Your task to perform on an android device: open app "Firefox Browser" (install if not already installed) and go to login screen Image 0: 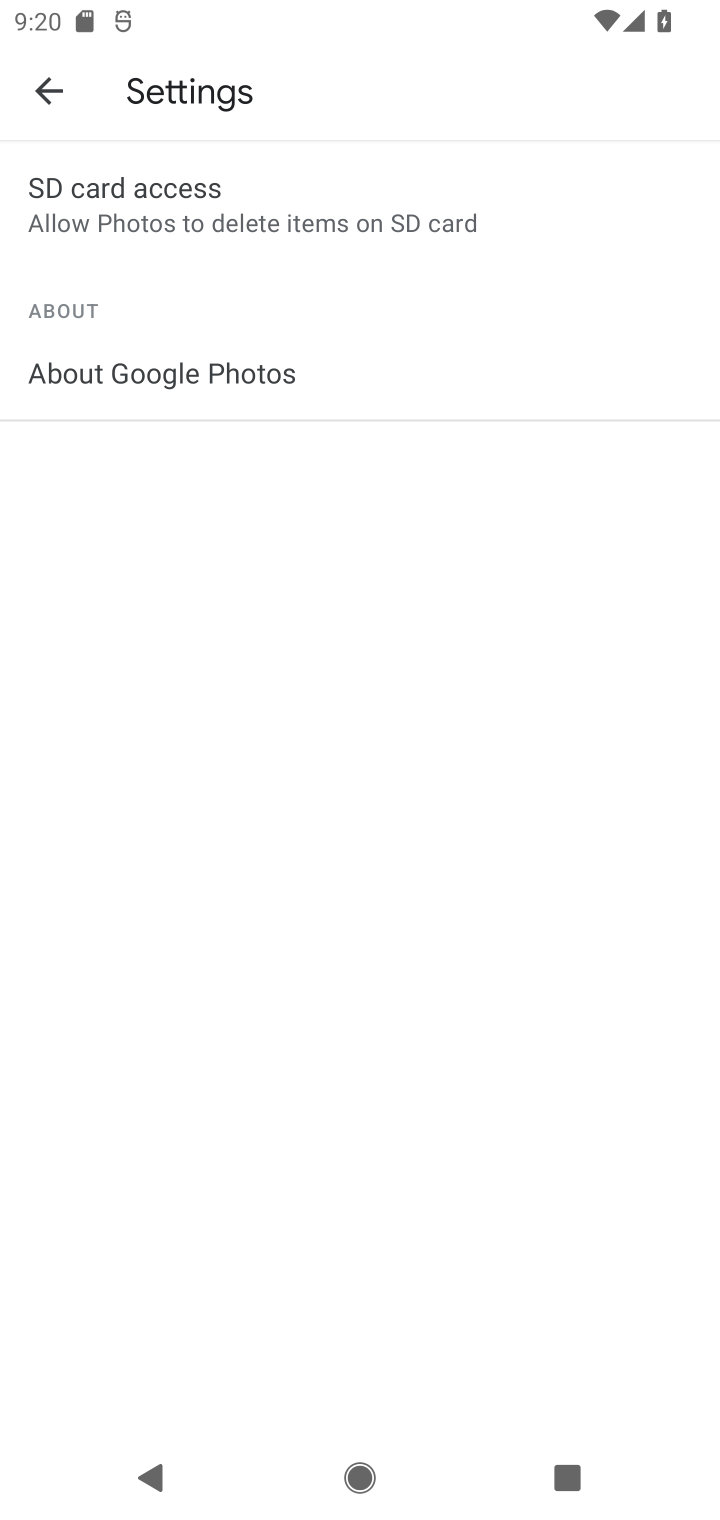
Step 0: press home button
Your task to perform on an android device: open app "Firefox Browser" (install if not already installed) and go to login screen Image 1: 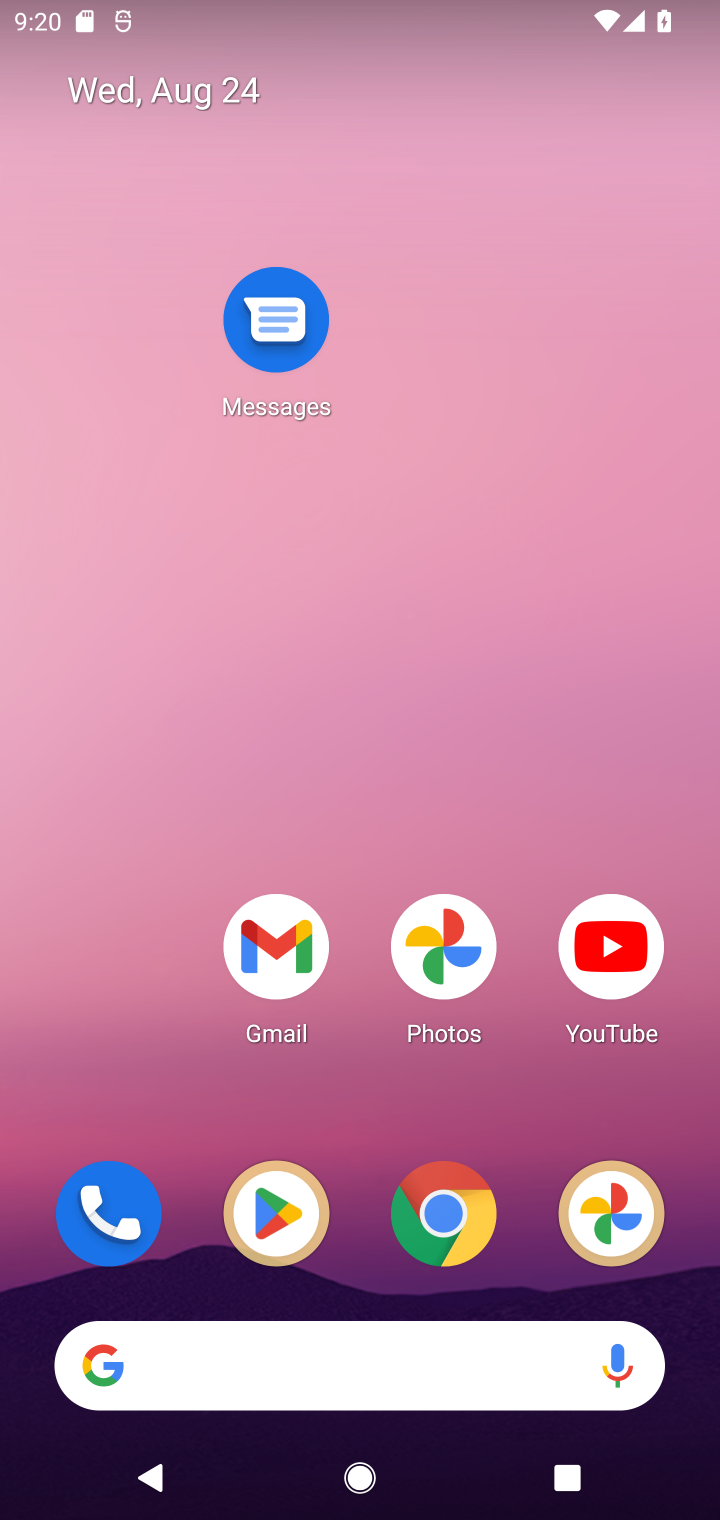
Step 1: click (284, 1244)
Your task to perform on an android device: open app "Firefox Browser" (install if not already installed) and go to login screen Image 2: 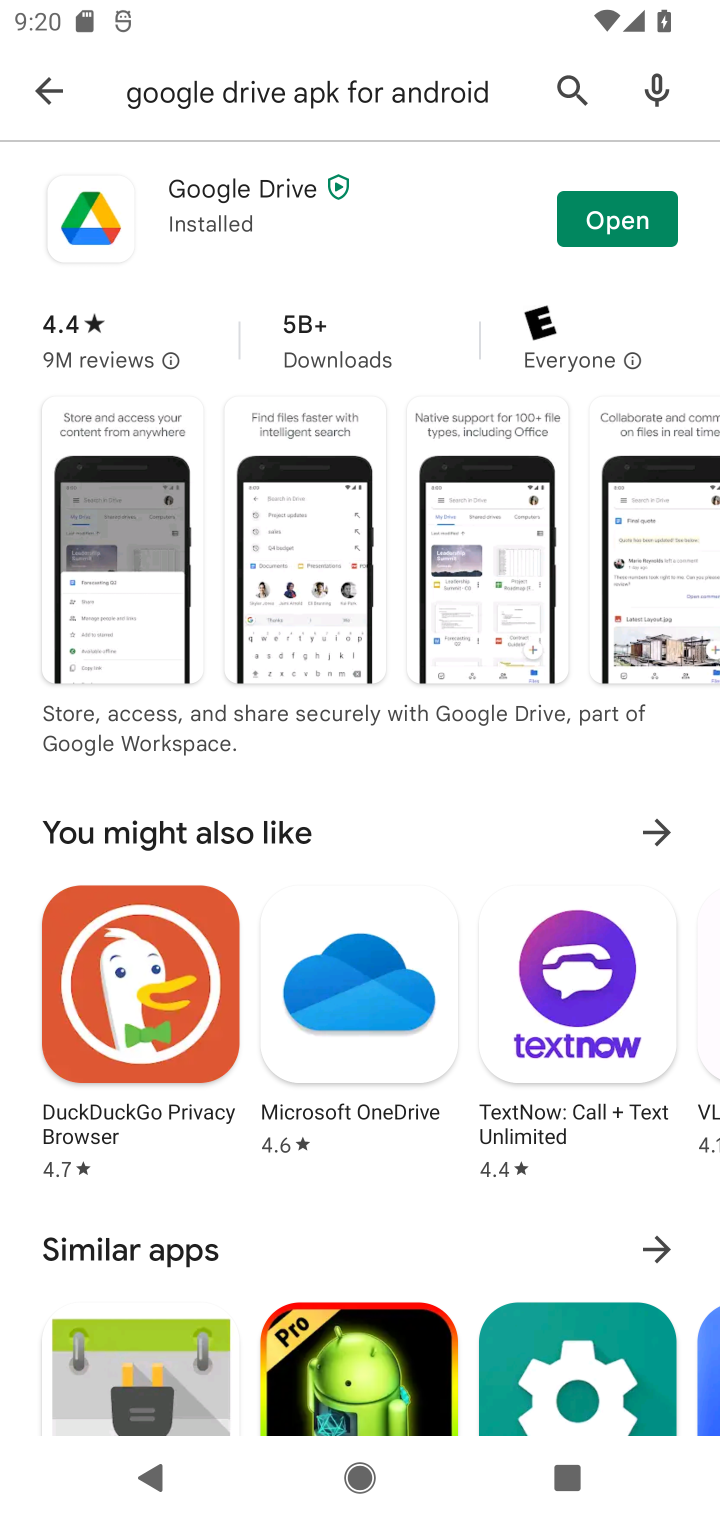
Step 2: click (228, 105)
Your task to perform on an android device: open app "Firefox Browser" (install if not already installed) and go to login screen Image 3: 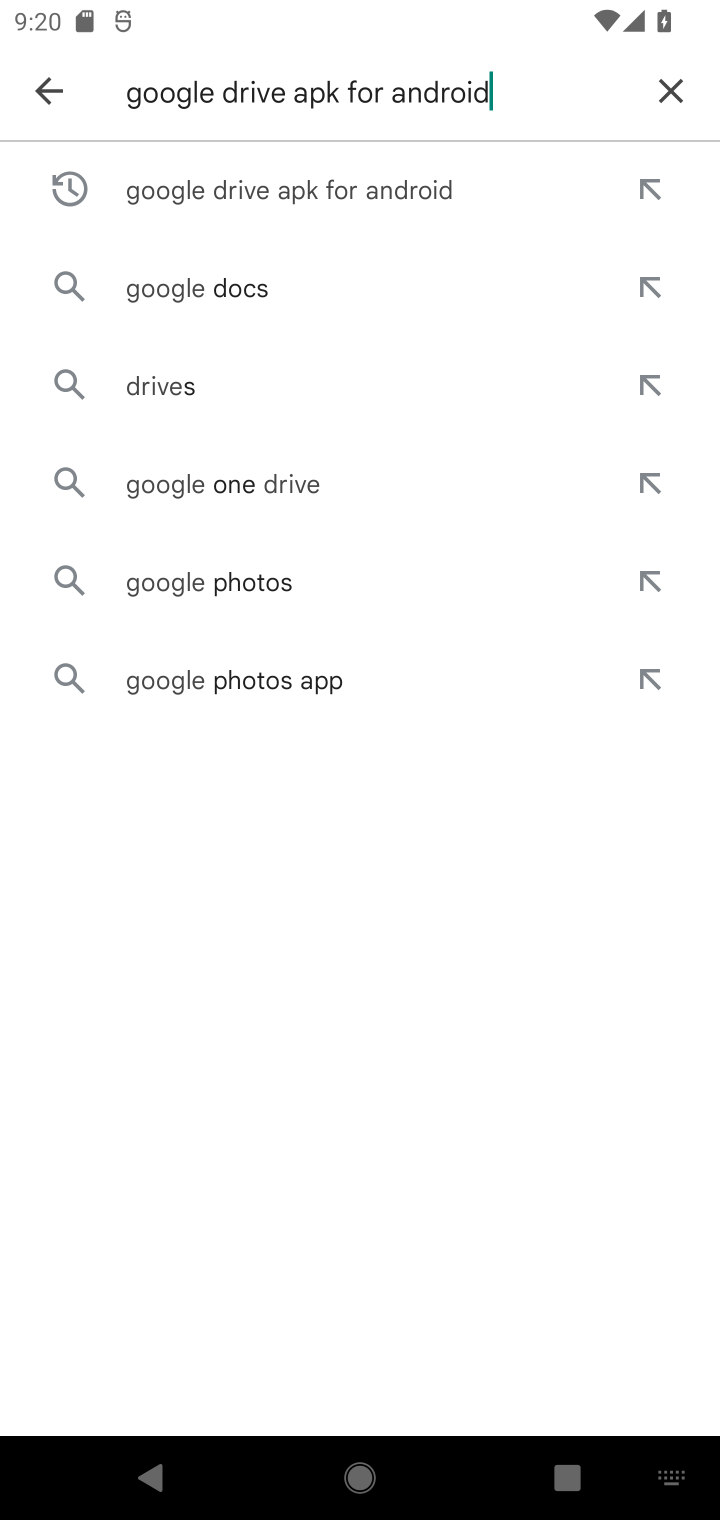
Step 3: click (667, 91)
Your task to perform on an android device: open app "Firefox Browser" (install if not already installed) and go to login screen Image 4: 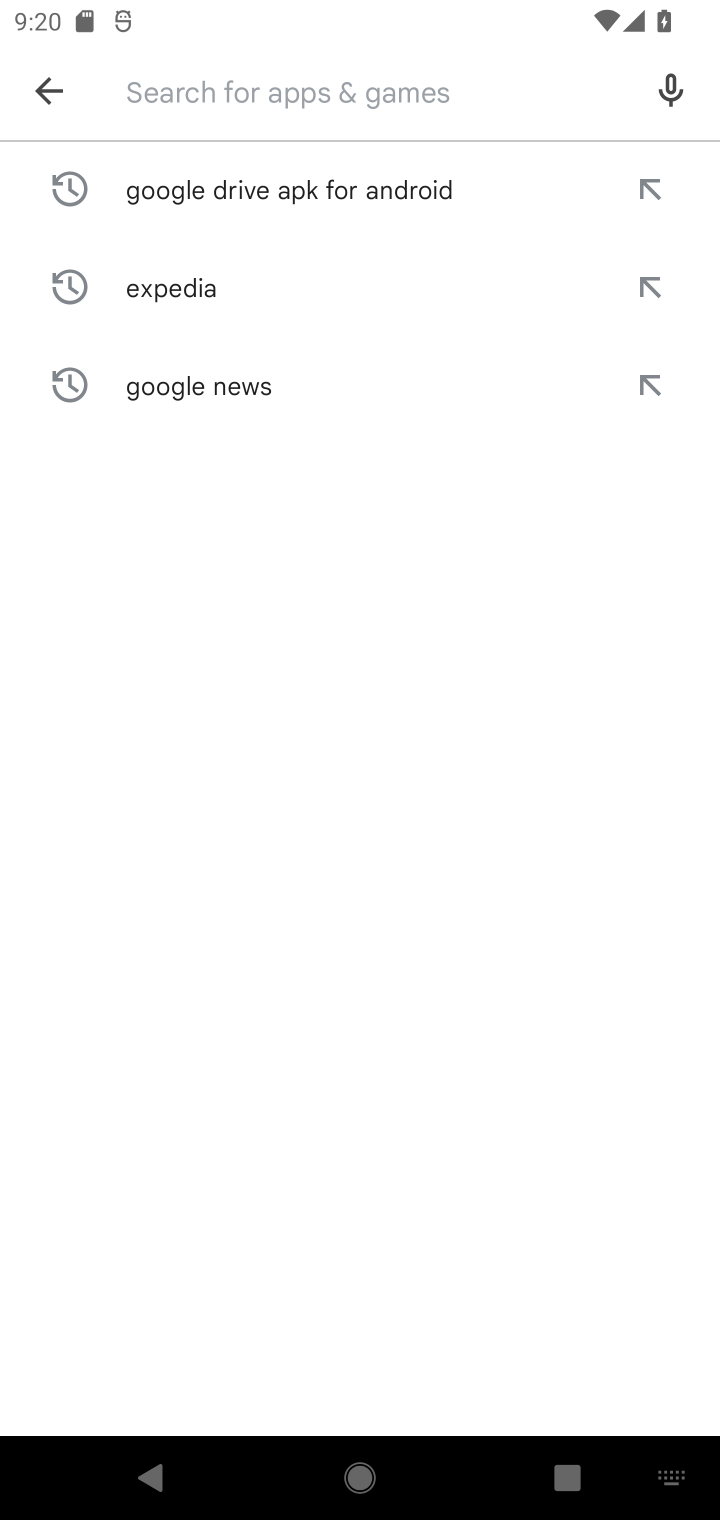
Step 4: type "firefox browser"
Your task to perform on an android device: open app "Firefox Browser" (install if not already installed) and go to login screen Image 5: 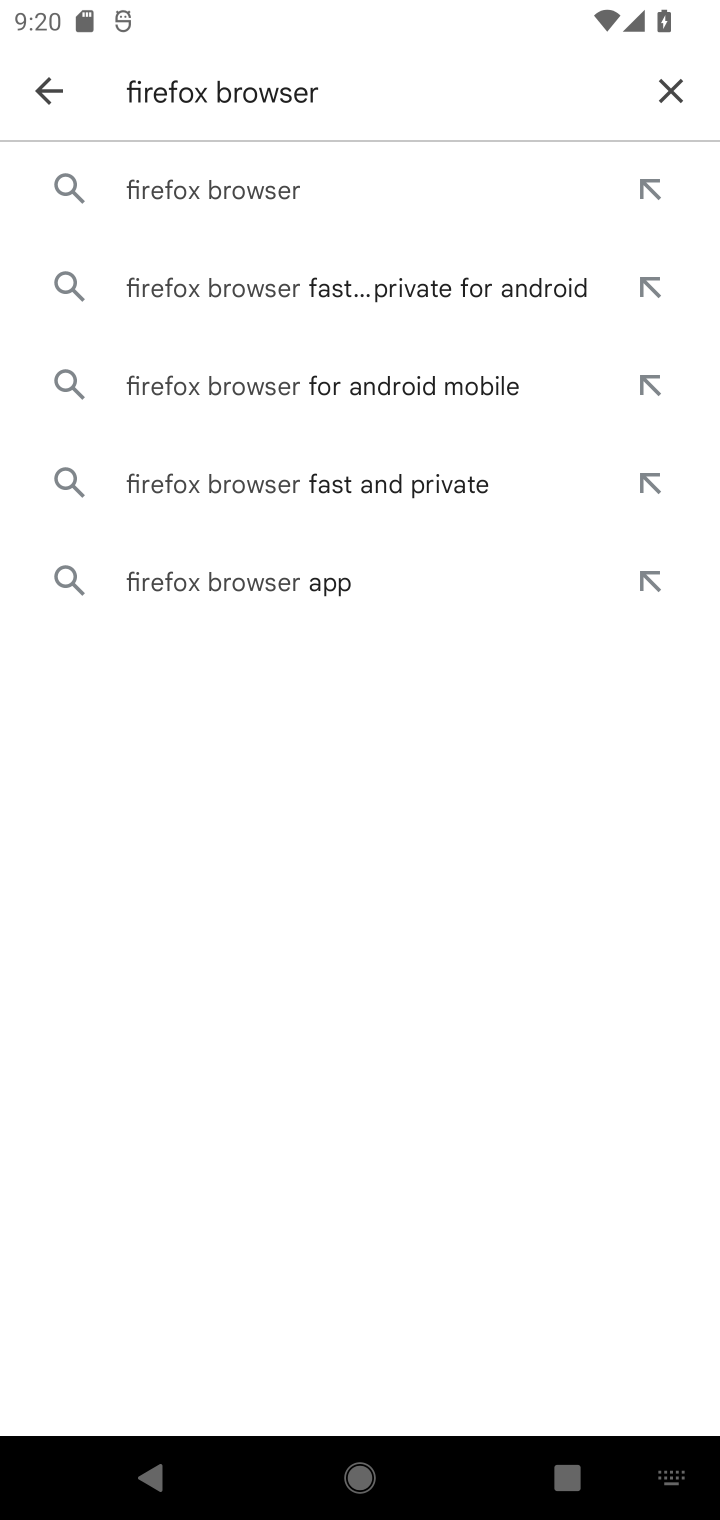
Step 5: click (304, 186)
Your task to perform on an android device: open app "Firefox Browser" (install if not already installed) and go to login screen Image 6: 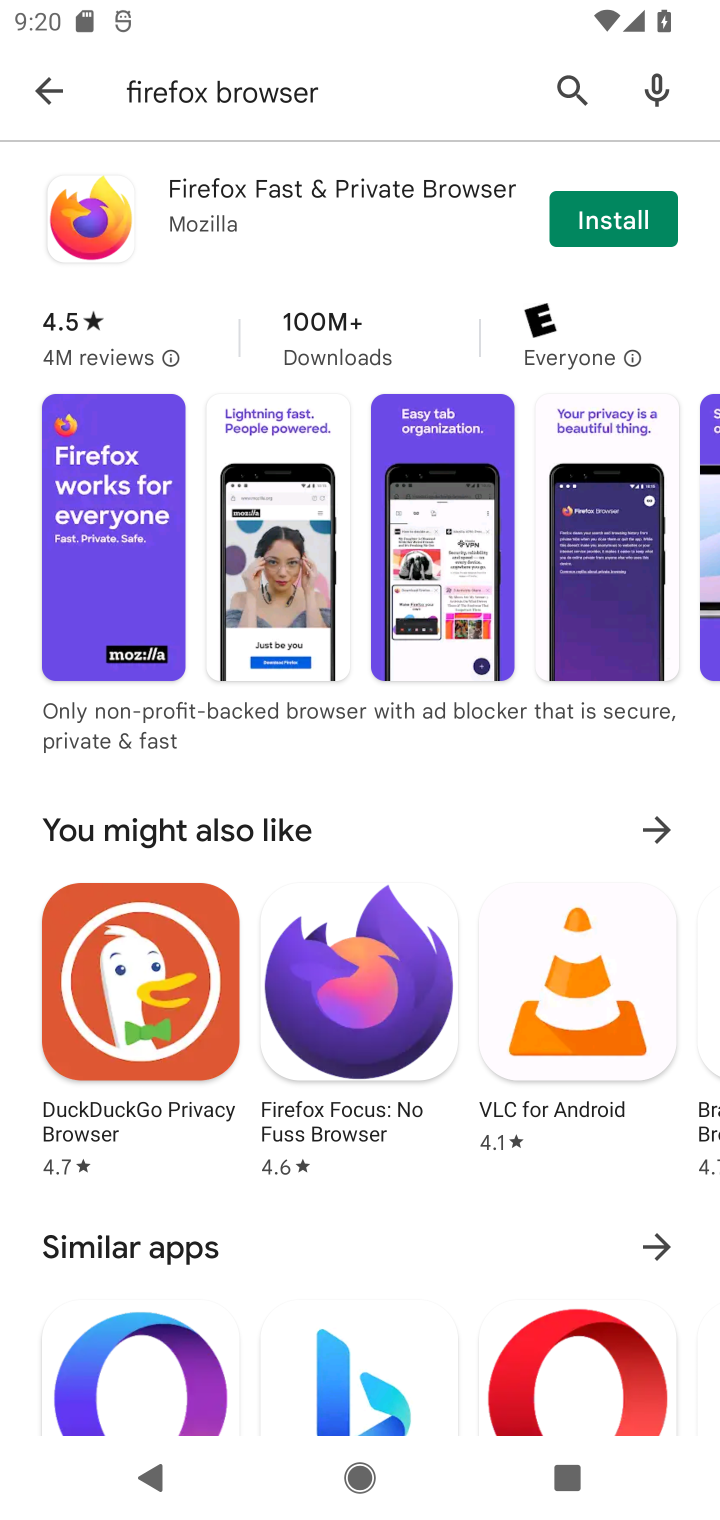
Step 6: click (616, 217)
Your task to perform on an android device: open app "Firefox Browser" (install if not already installed) and go to login screen Image 7: 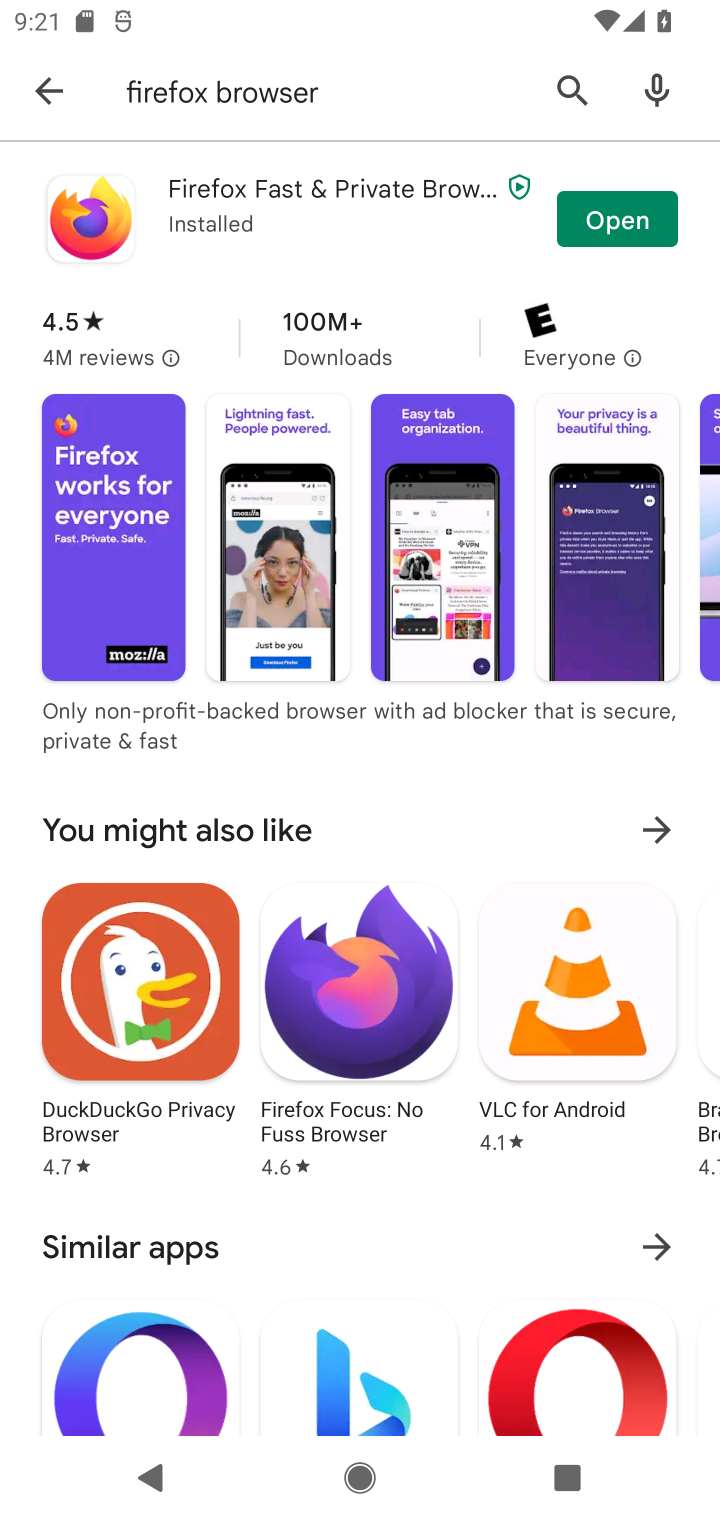
Step 7: click (604, 205)
Your task to perform on an android device: open app "Firefox Browser" (install if not already installed) and go to login screen Image 8: 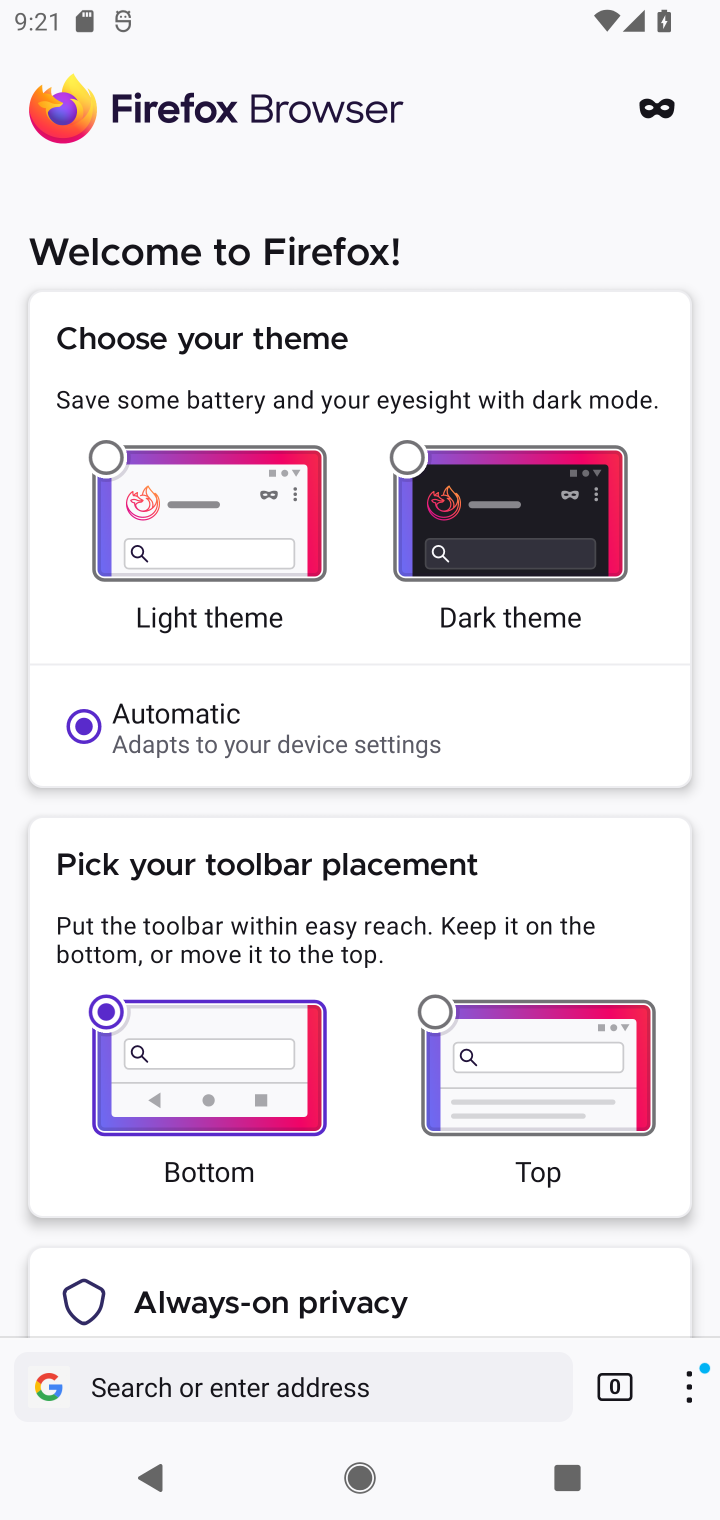
Step 8: task complete